Your task to perform on an android device: delete location history Image 0: 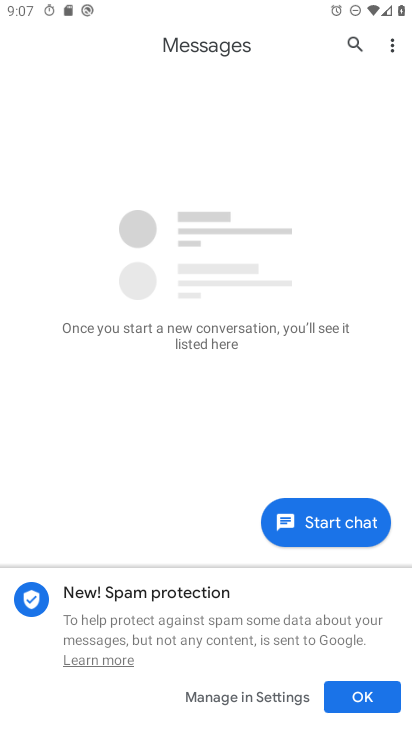
Step 0: press home button
Your task to perform on an android device: delete location history Image 1: 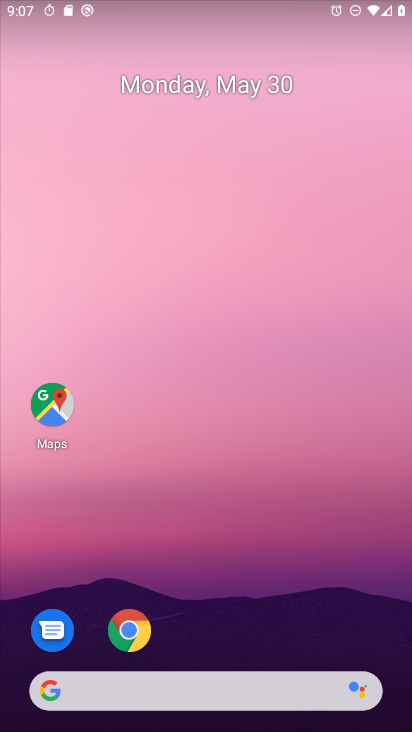
Step 1: drag from (358, 622) to (261, 7)
Your task to perform on an android device: delete location history Image 2: 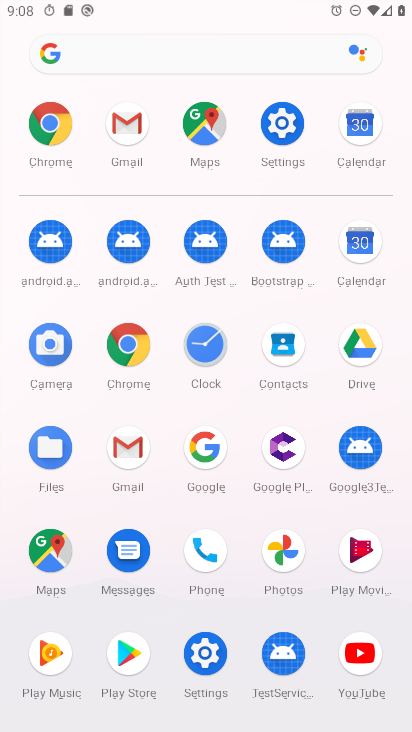
Step 2: click (199, 661)
Your task to perform on an android device: delete location history Image 3: 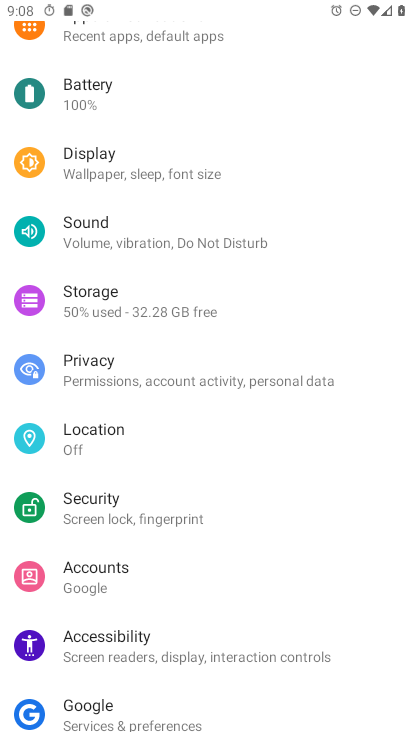
Step 3: click (102, 416)
Your task to perform on an android device: delete location history Image 4: 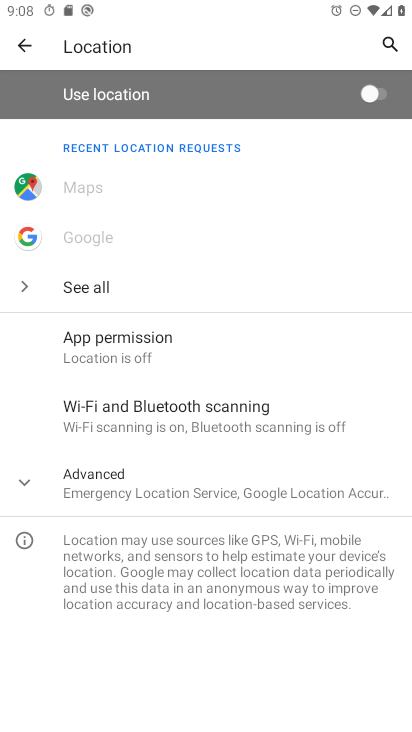
Step 4: click (129, 467)
Your task to perform on an android device: delete location history Image 5: 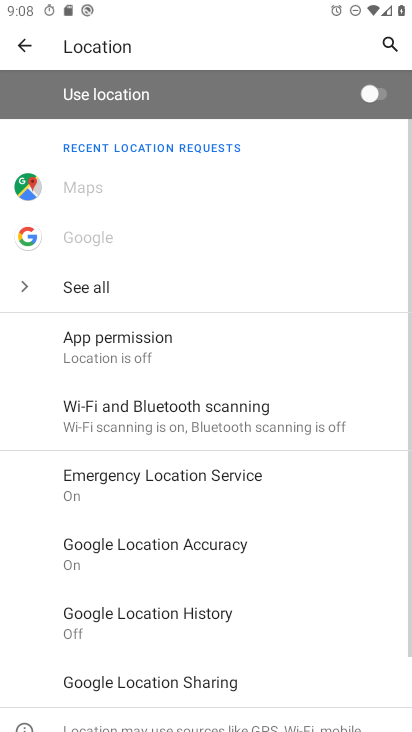
Step 5: click (147, 603)
Your task to perform on an android device: delete location history Image 6: 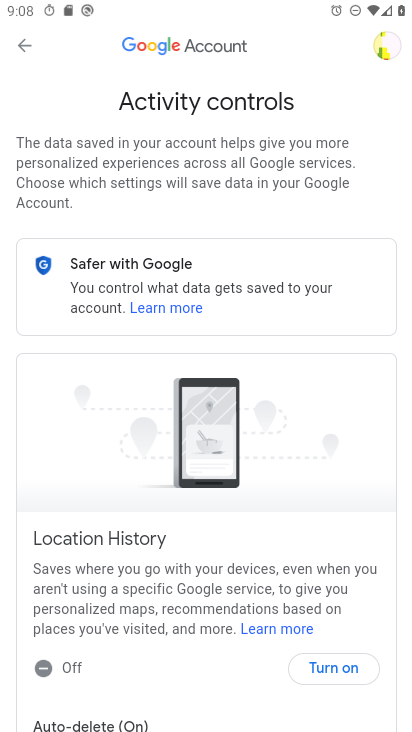
Step 6: drag from (265, 670) to (249, 183)
Your task to perform on an android device: delete location history Image 7: 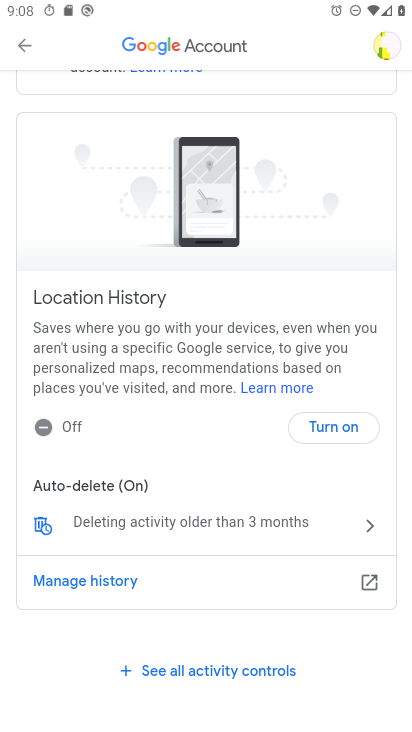
Step 7: click (198, 517)
Your task to perform on an android device: delete location history Image 8: 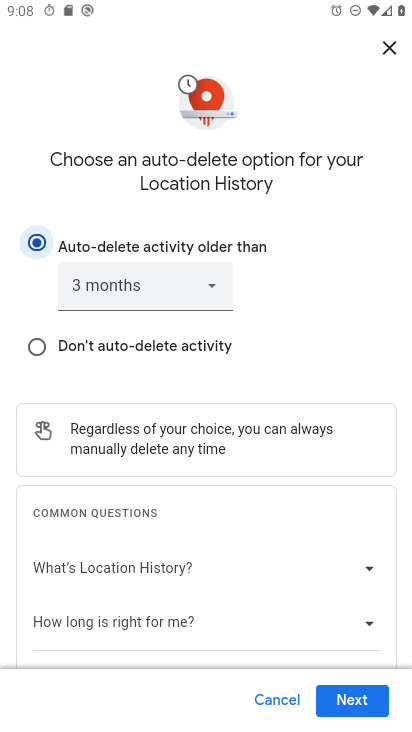
Step 8: click (357, 692)
Your task to perform on an android device: delete location history Image 9: 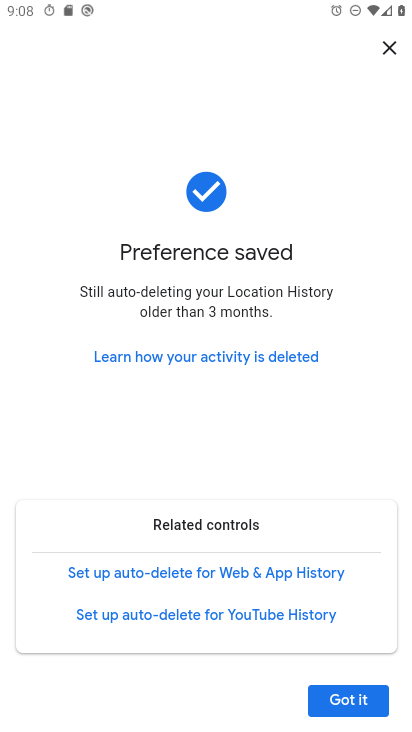
Step 9: click (353, 698)
Your task to perform on an android device: delete location history Image 10: 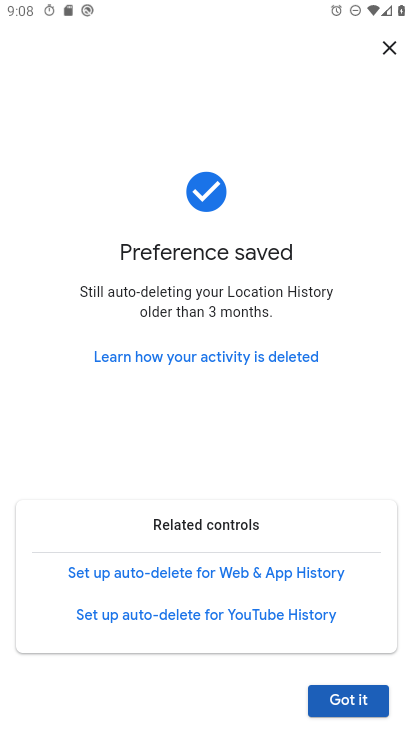
Step 10: click (346, 703)
Your task to perform on an android device: delete location history Image 11: 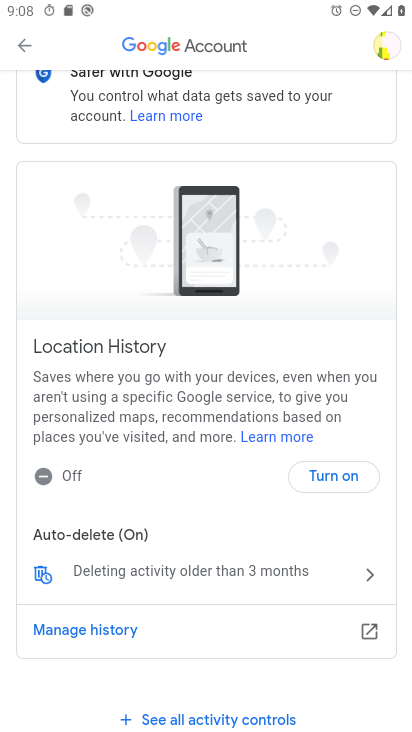
Step 11: task complete